Your task to perform on an android device: Go to eBay Image 0: 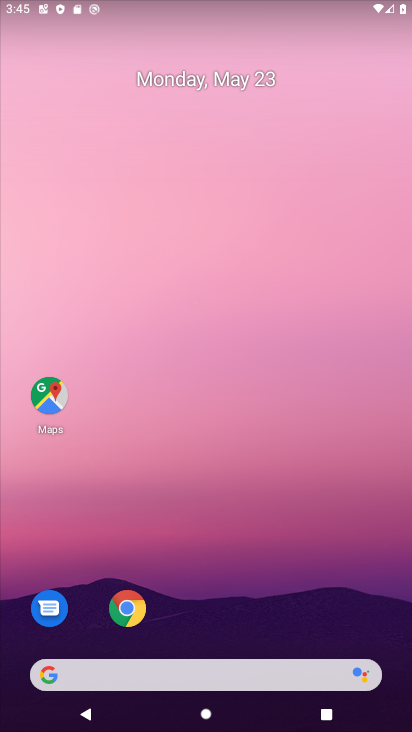
Step 0: click (125, 610)
Your task to perform on an android device: Go to eBay Image 1: 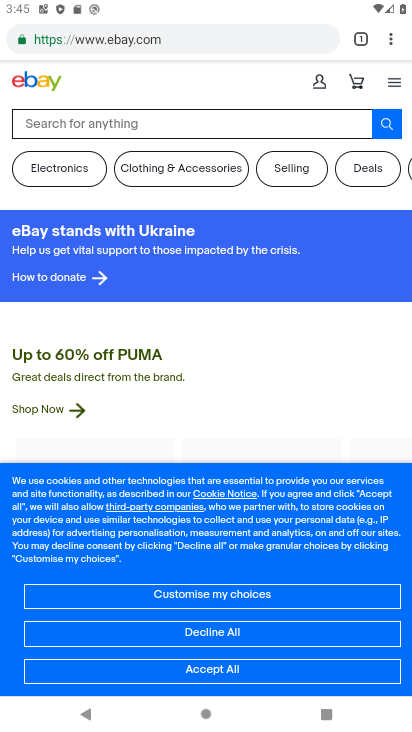
Step 1: task complete